Your task to perform on an android device: Turn off the flashlight Image 0: 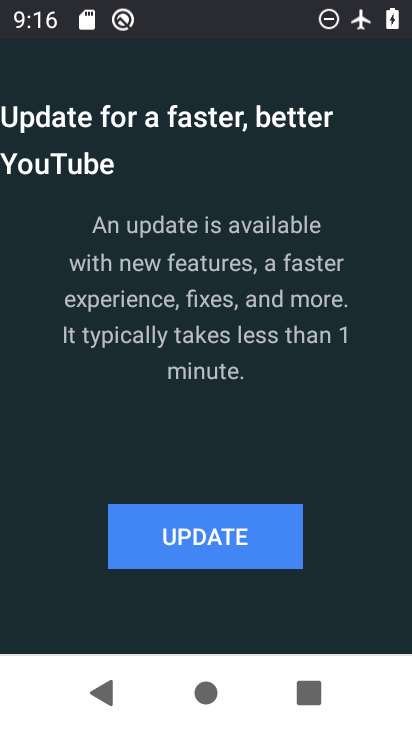
Step 0: drag from (257, 41) to (264, 319)
Your task to perform on an android device: Turn off the flashlight Image 1: 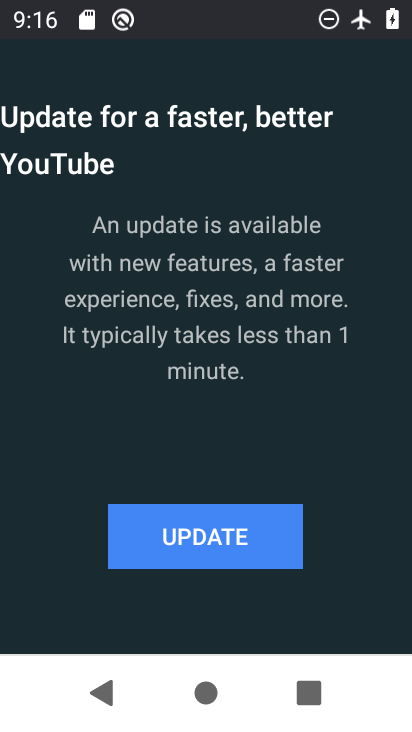
Step 1: drag from (204, 30) to (171, 543)
Your task to perform on an android device: Turn off the flashlight Image 2: 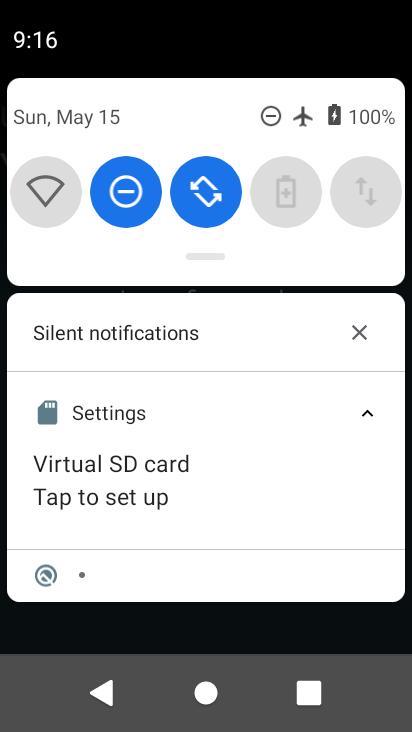
Step 2: drag from (192, 107) to (206, 701)
Your task to perform on an android device: Turn off the flashlight Image 3: 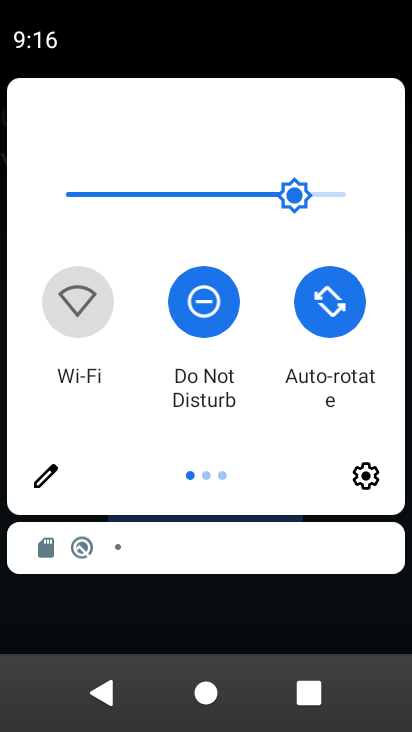
Step 3: click (365, 479)
Your task to perform on an android device: Turn off the flashlight Image 4: 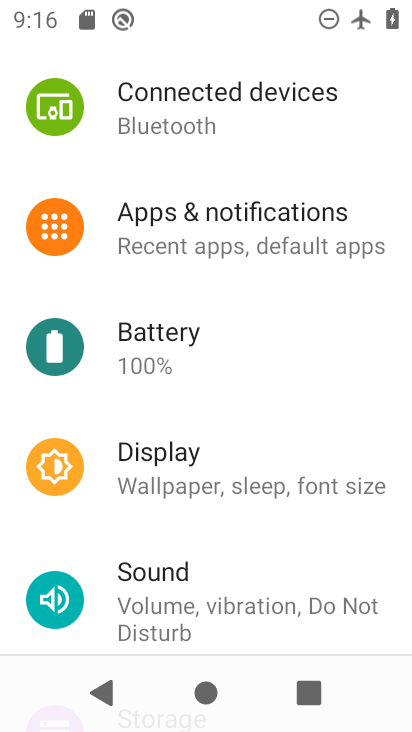
Step 4: task complete